Your task to perform on an android device: Go to internet settings Image 0: 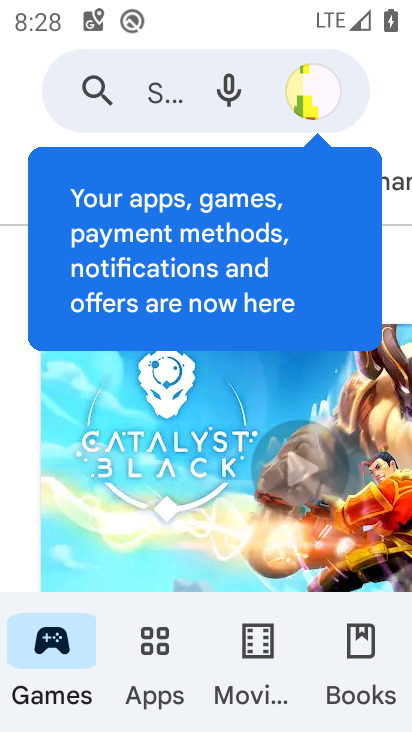
Step 0: press home button
Your task to perform on an android device: Go to internet settings Image 1: 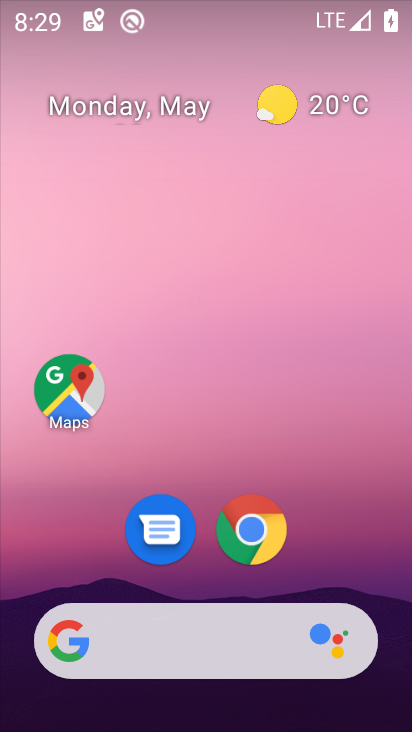
Step 1: drag from (65, 630) to (307, 304)
Your task to perform on an android device: Go to internet settings Image 2: 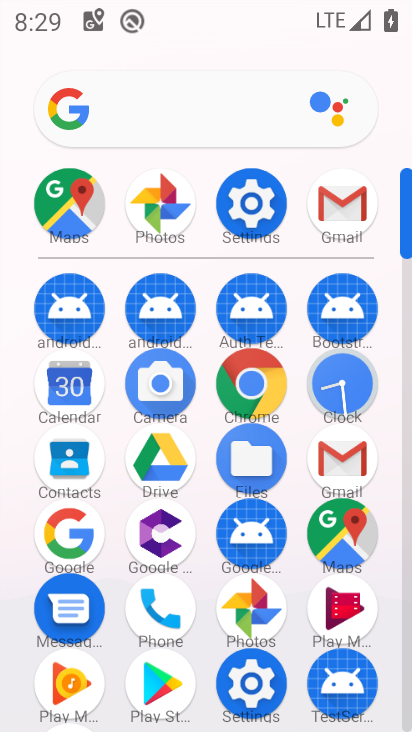
Step 2: click (261, 229)
Your task to perform on an android device: Go to internet settings Image 3: 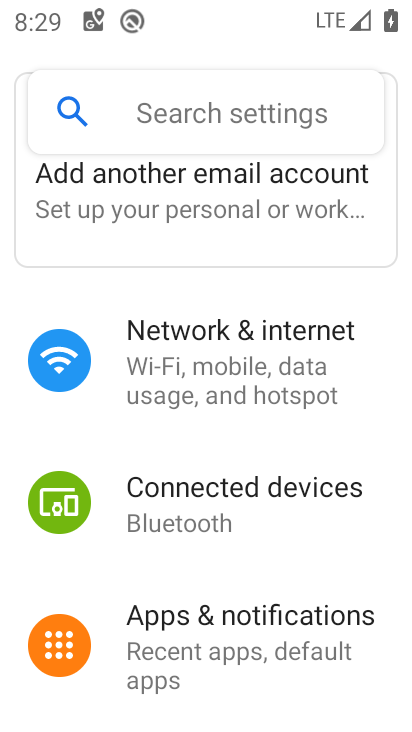
Step 3: click (200, 380)
Your task to perform on an android device: Go to internet settings Image 4: 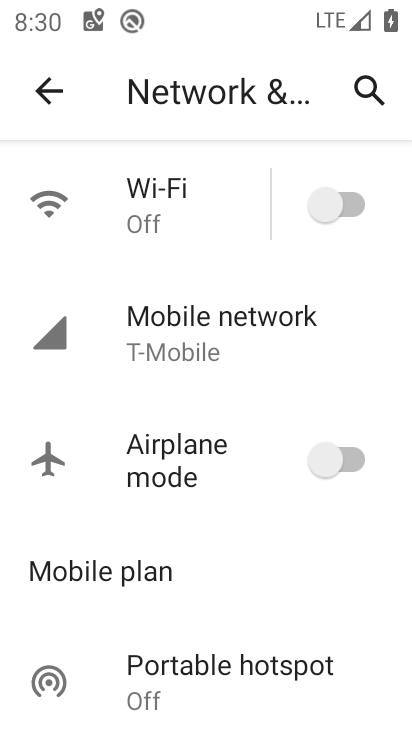
Step 4: task complete